Your task to perform on an android device: What's the weather going to be this weekend? Image 0: 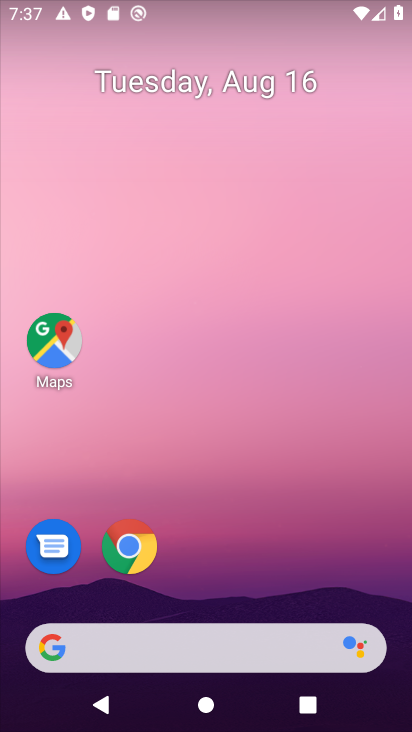
Step 0: click (229, 654)
Your task to perform on an android device: What's the weather going to be this weekend? Image 1: 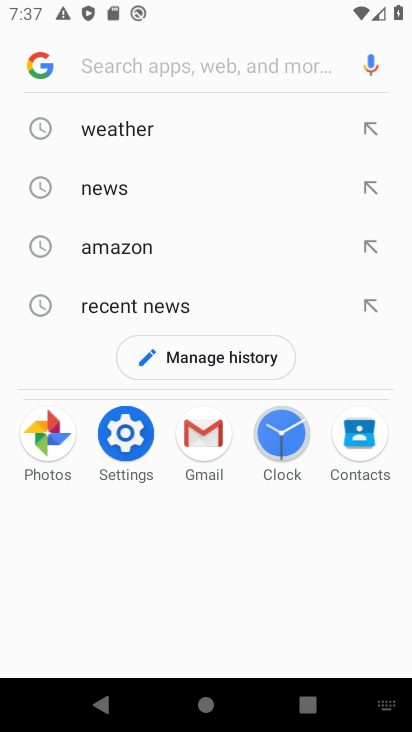
Step 1: click (134, 130)
Your task to perform on an android device: What's the weather going to be this weekend? Image 2: 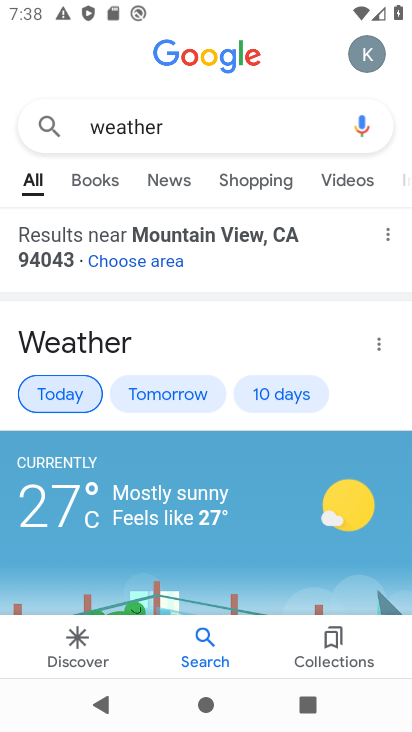
Step 2: click (275, 391)
Your task to perform on an android device: What's the weather going to be this weekend? Image 3: 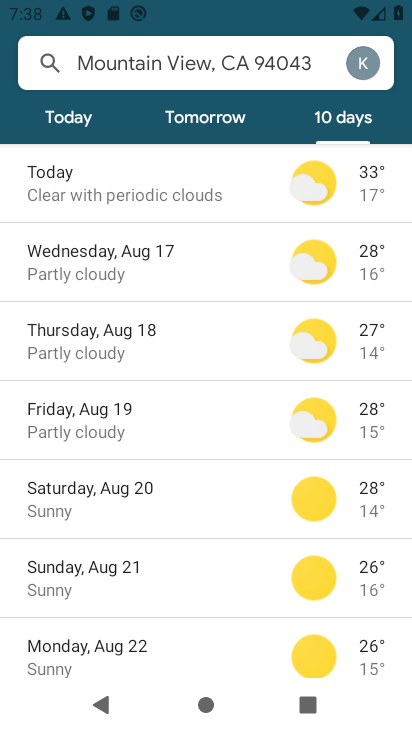
Step 3: click (136, 480)
Your task to perform on an android device: What's the weather going to be this weekend? Image 4: 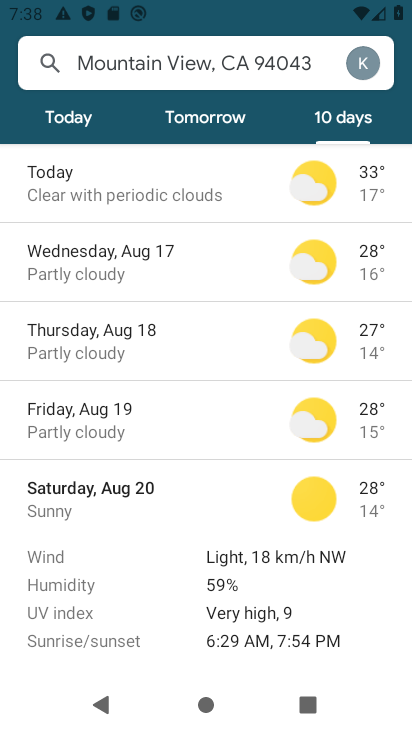
Step 4: click (206, 351)
Your task to perform on an android device: What's the weather going to be this weekend? Image 5: 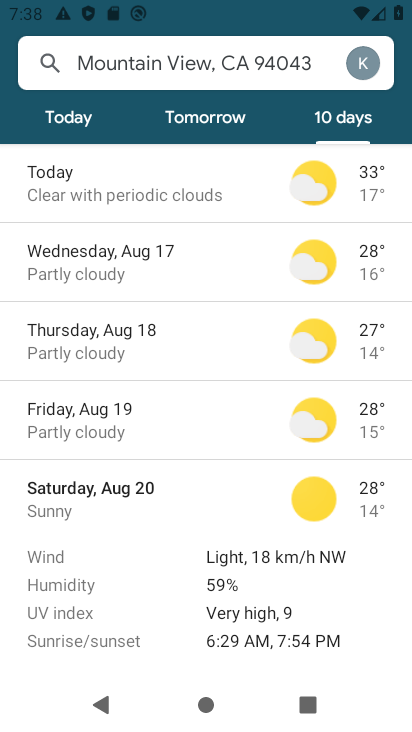
Step 5: task complete